Your task to perform on an android device: turn notification dots off Image 0: 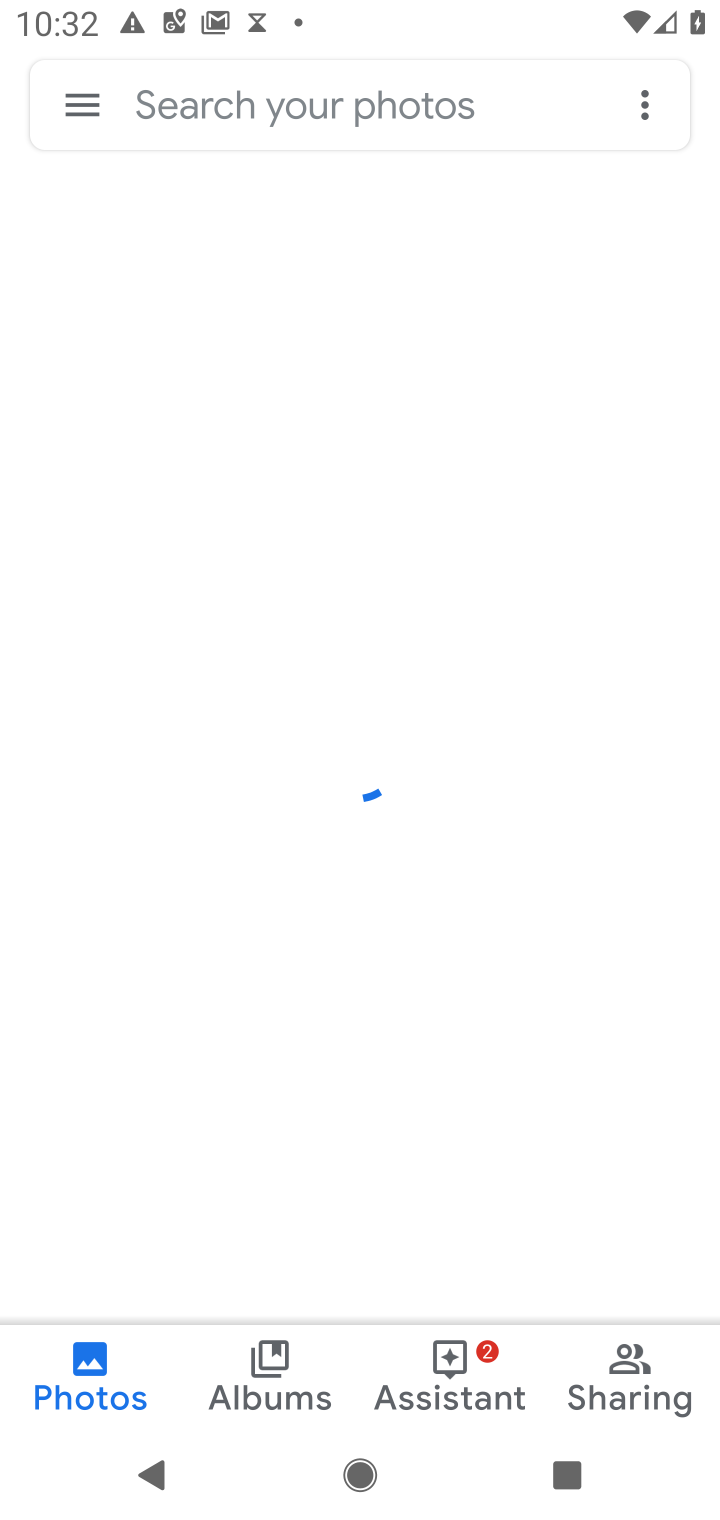
Step 0: press home button
Your task to perform on an android device: turn notification dots off Image 1: 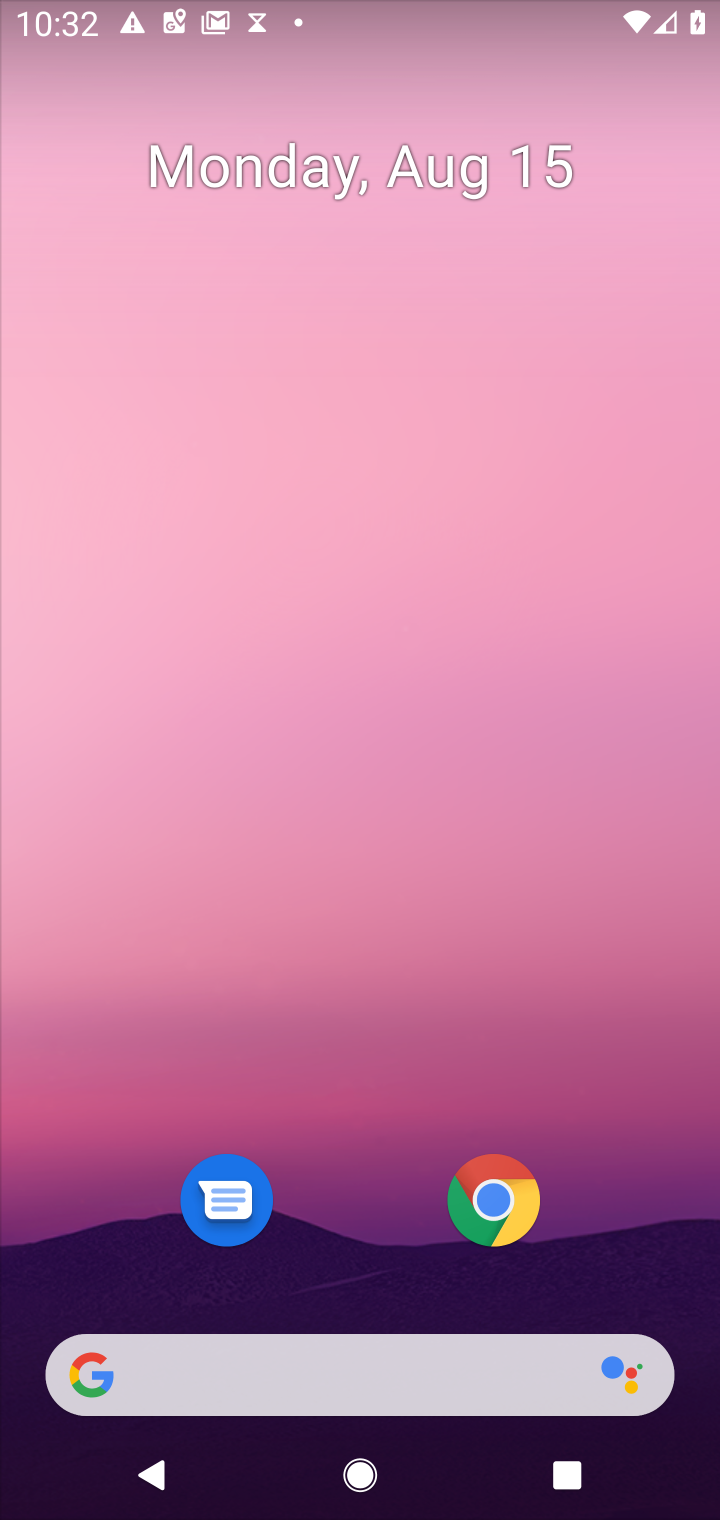
Step 1: drag from (371, 1249) to (361, 434)
Your task to perform on an android device: turn notification dots off Image 2: 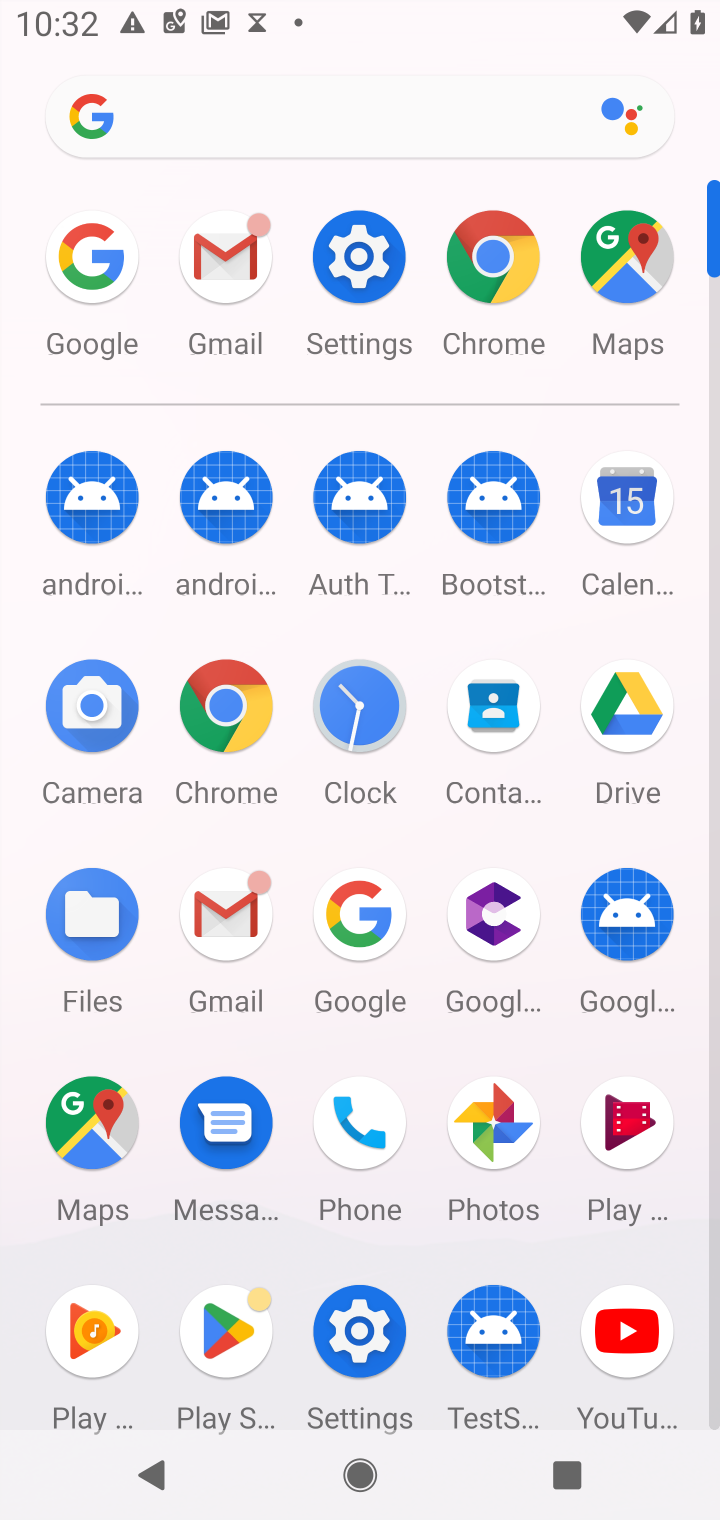
Step 2: click (348, 244)
Your task to perform on an android device: turn notification dots off Image 3: 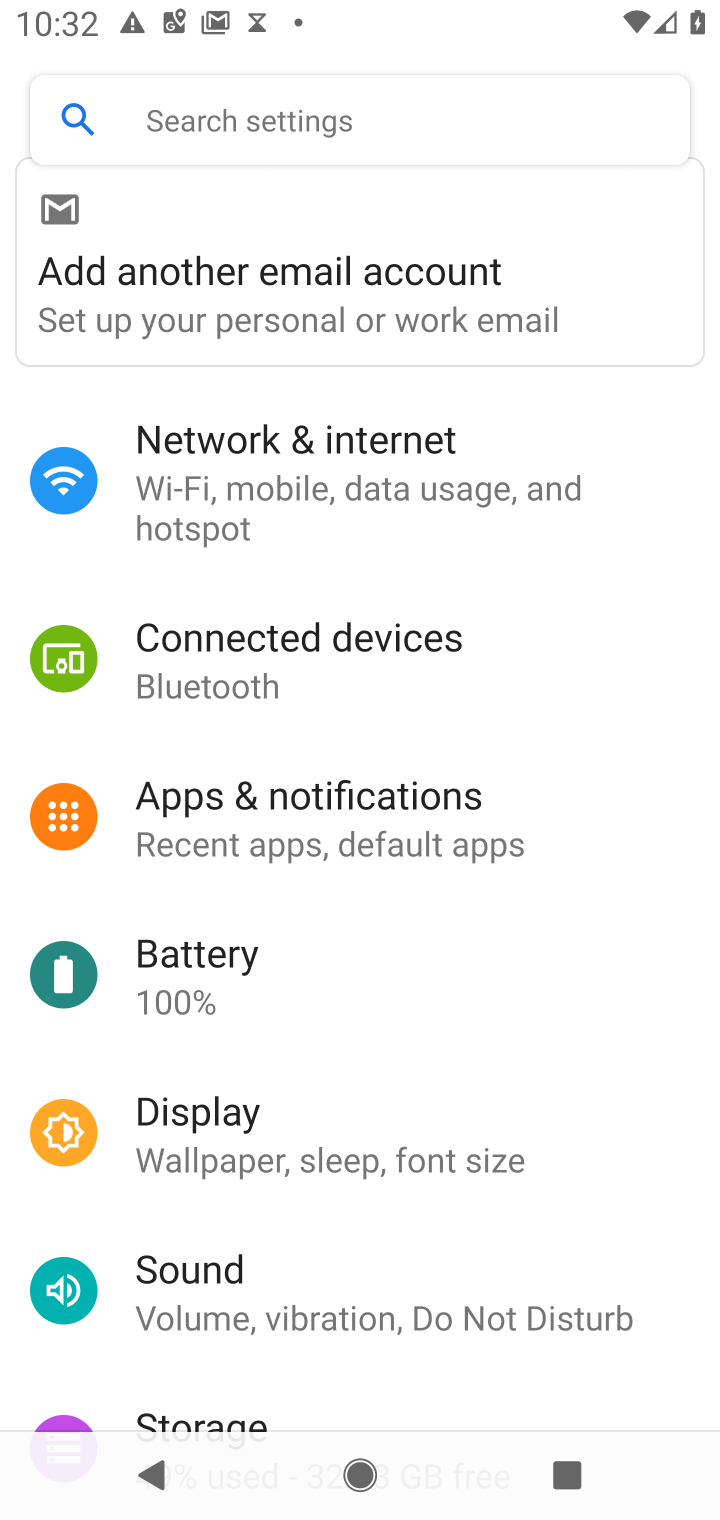
Step 3: click (431, 808)
Your task to perform on an android device: turn notification dots off Image 4: 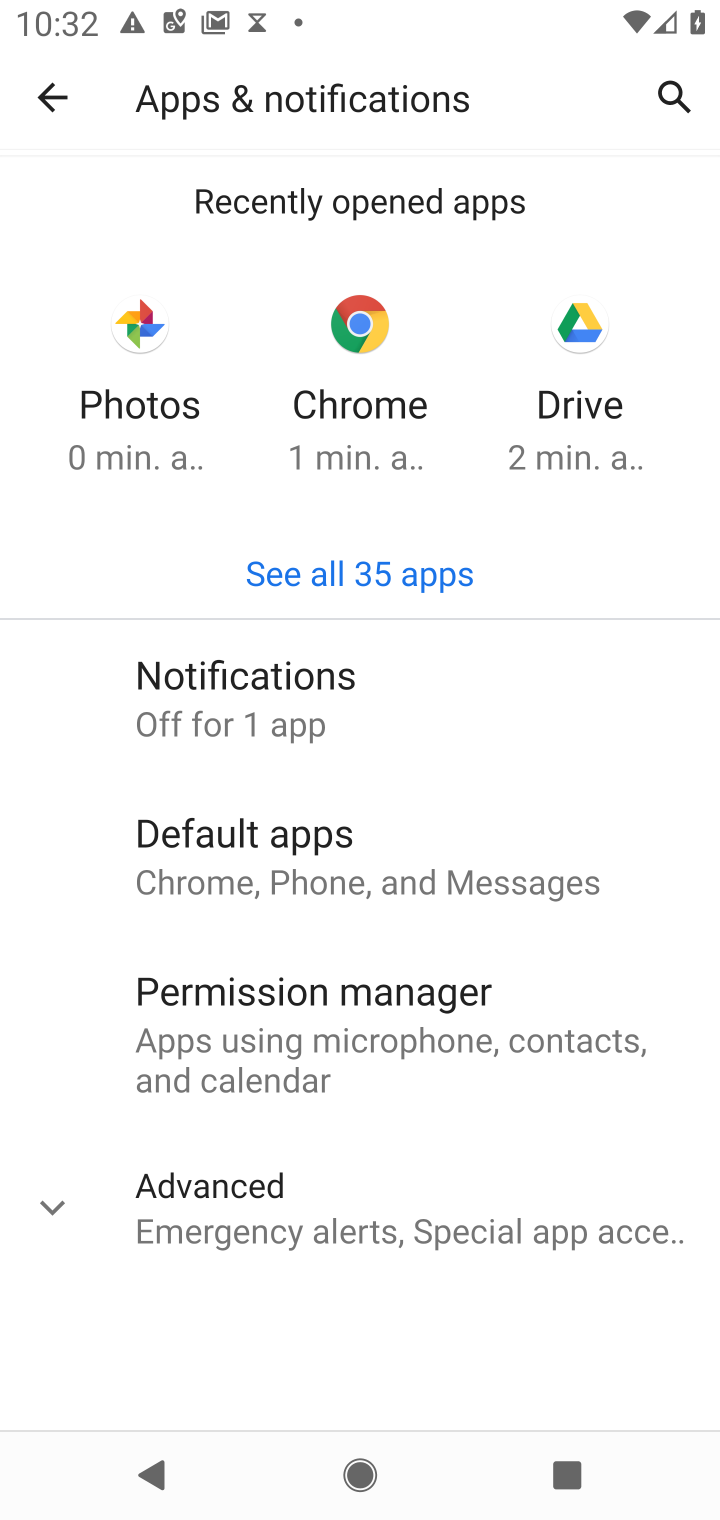
Step 4: click (399, 726)
Your task to perform on an android device: turn notification dots off Image 5: 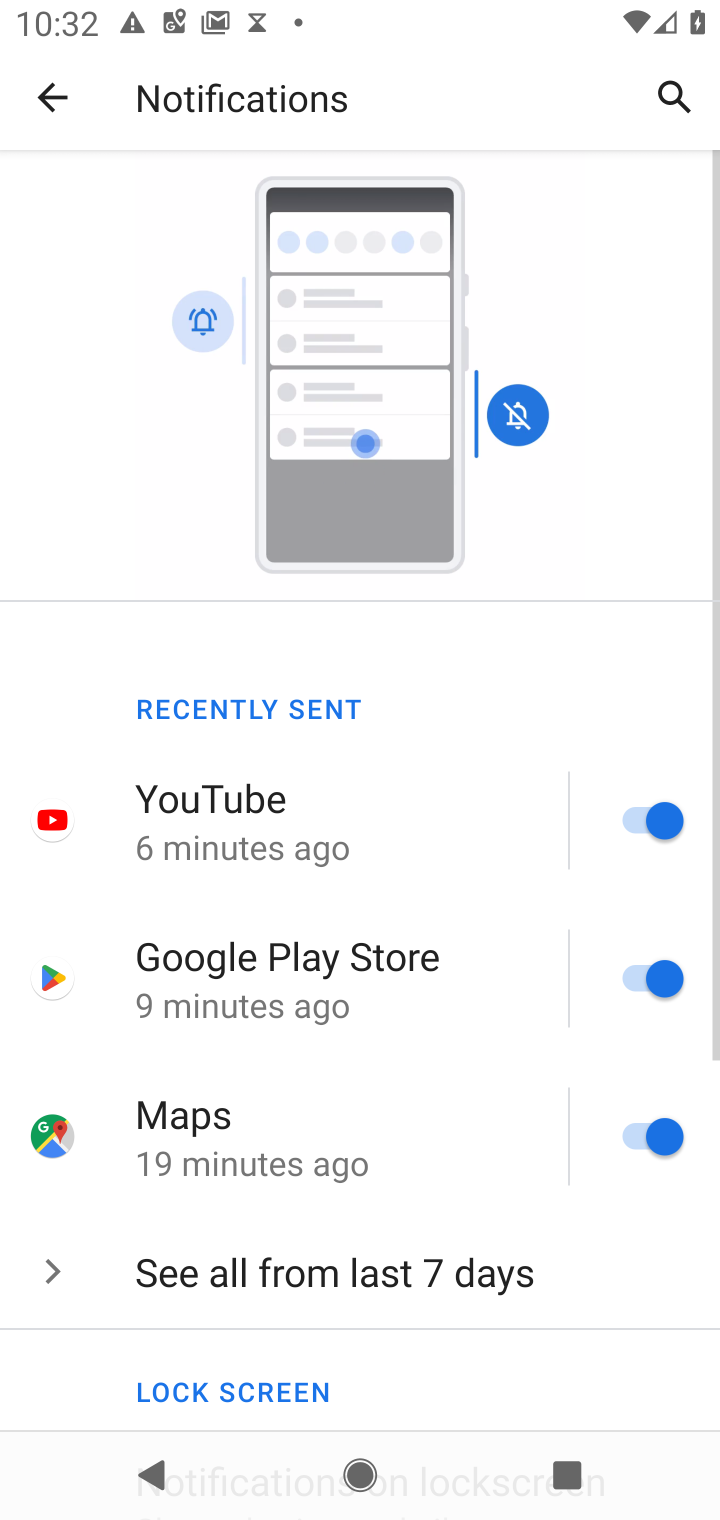
Step 5: drag from (430, 1235) to (468, 514)
Your task to perform on an android device: turn notification dots off Image 6: 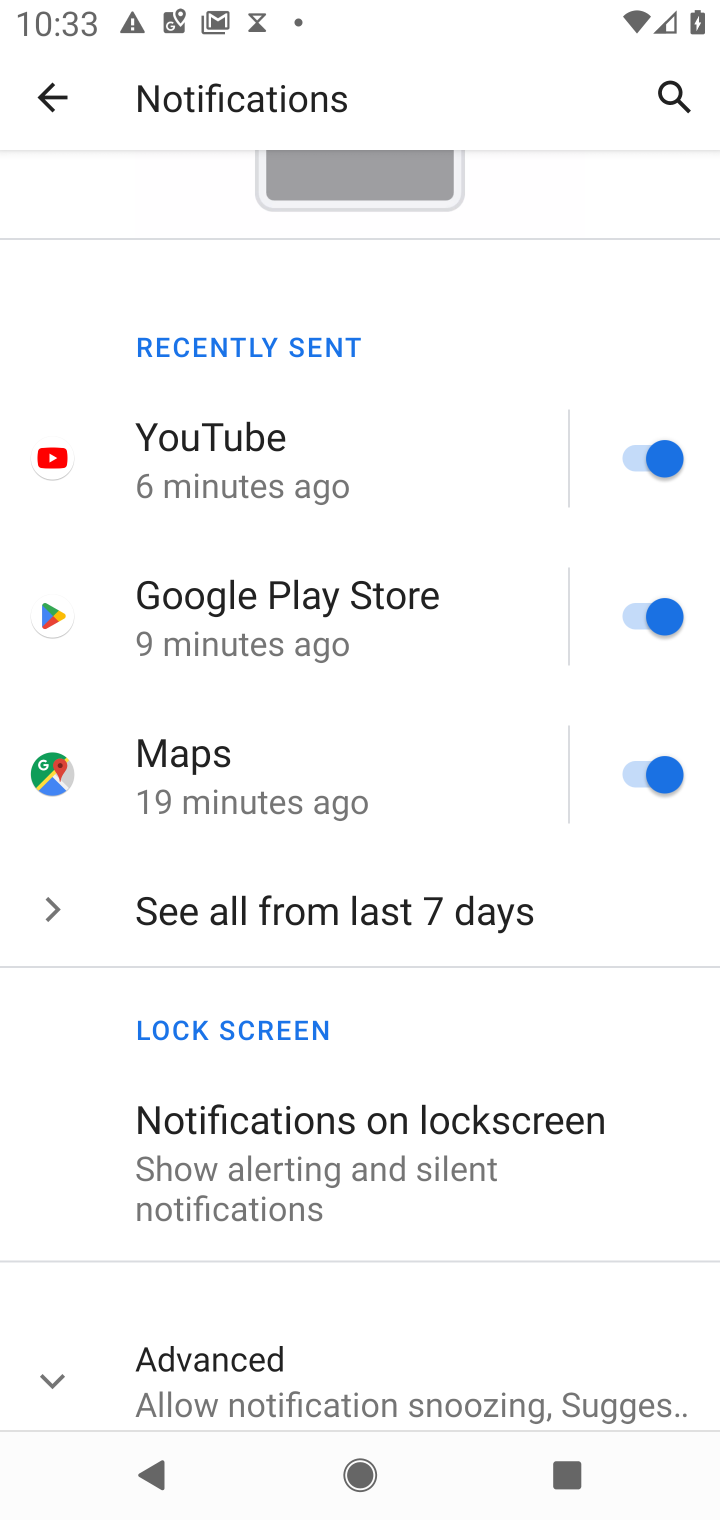
Step 6: drag from (459, 1159) to (457, 693)
Your task to perform on an android device: turn notification dots off Image 7: 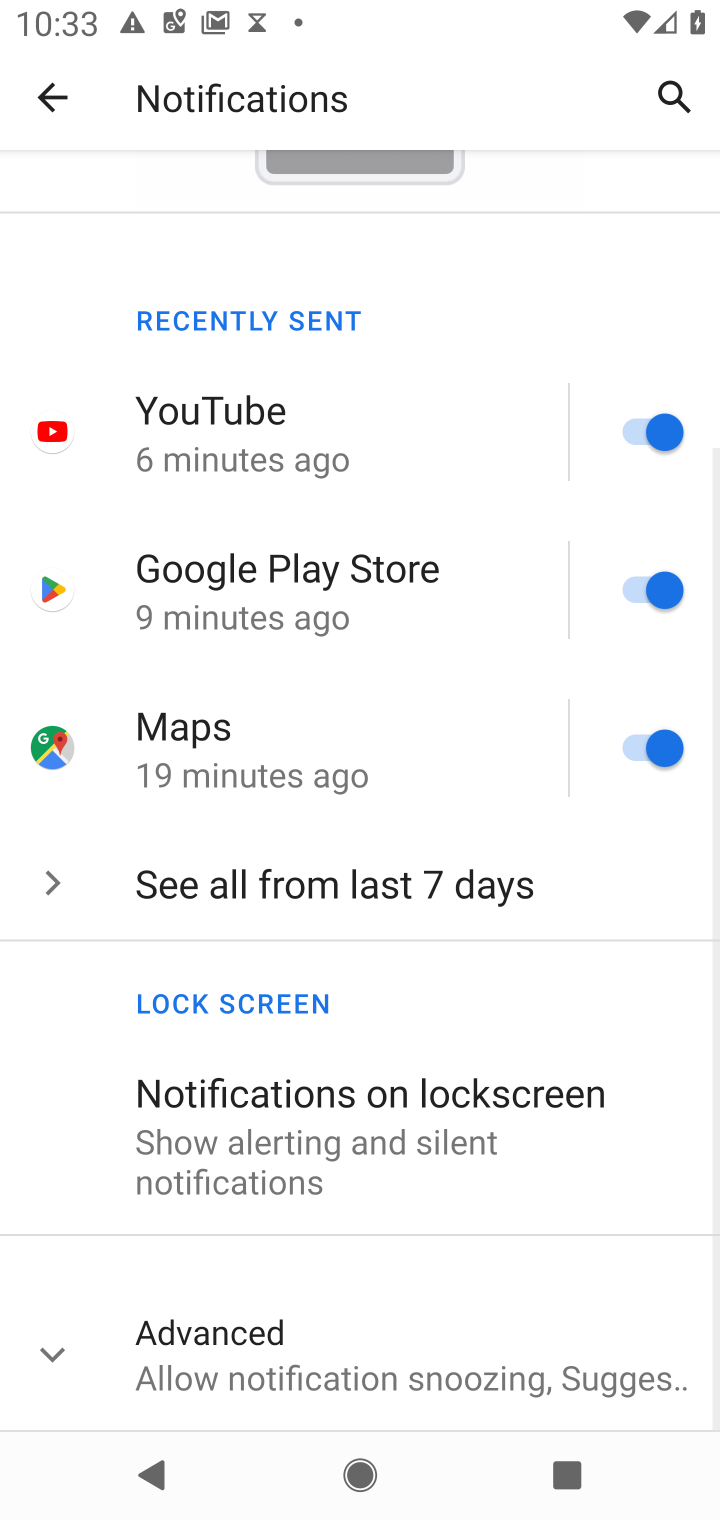
Step 7: click (299, 1378)
Your task to perform on an android device: turn notification dots off Image 8: 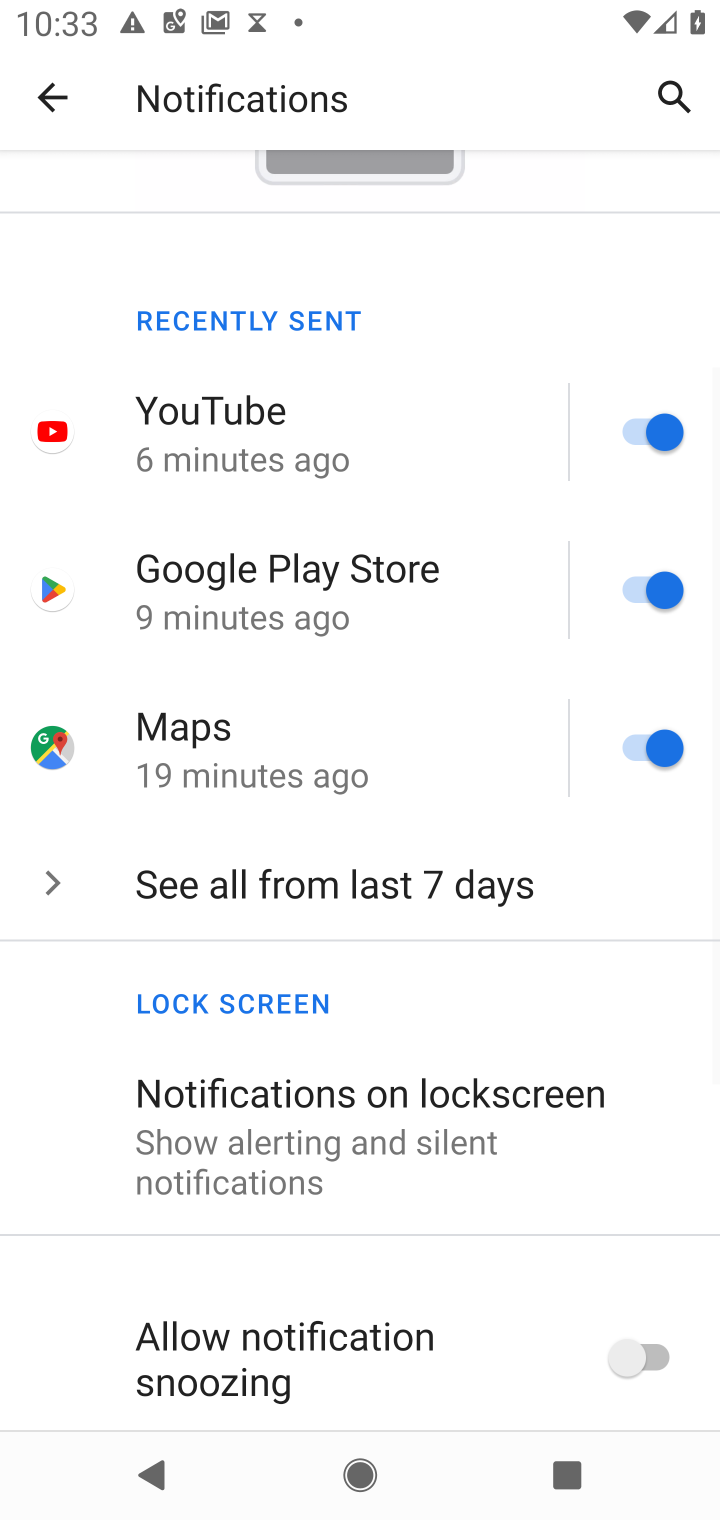
Step 8: drag from (424, 1293) to (427, 580)
Your task to perform on an android device: turn notification dots off Image 9: 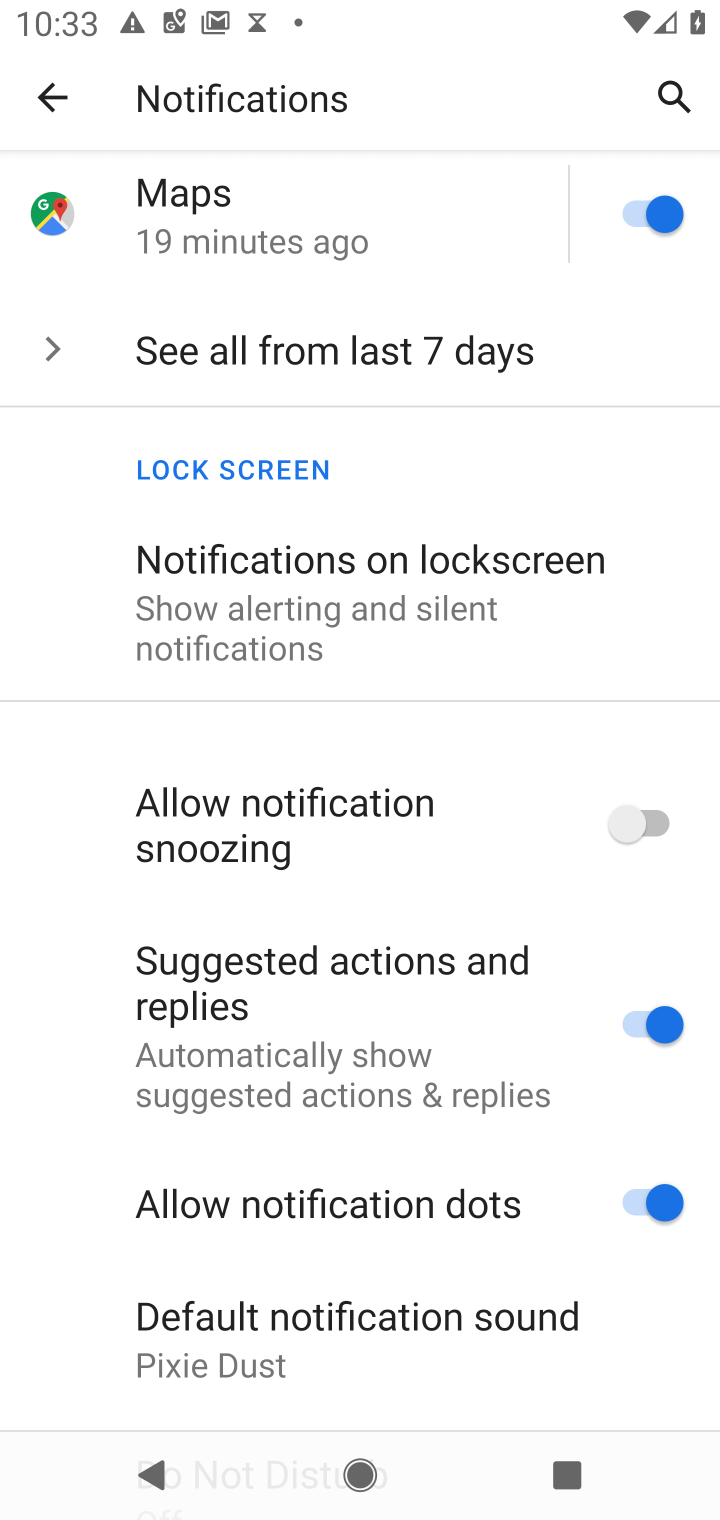
Step 9: click (647, 1198)
Your task to perform on an android device: turn notification dots off Image 10: 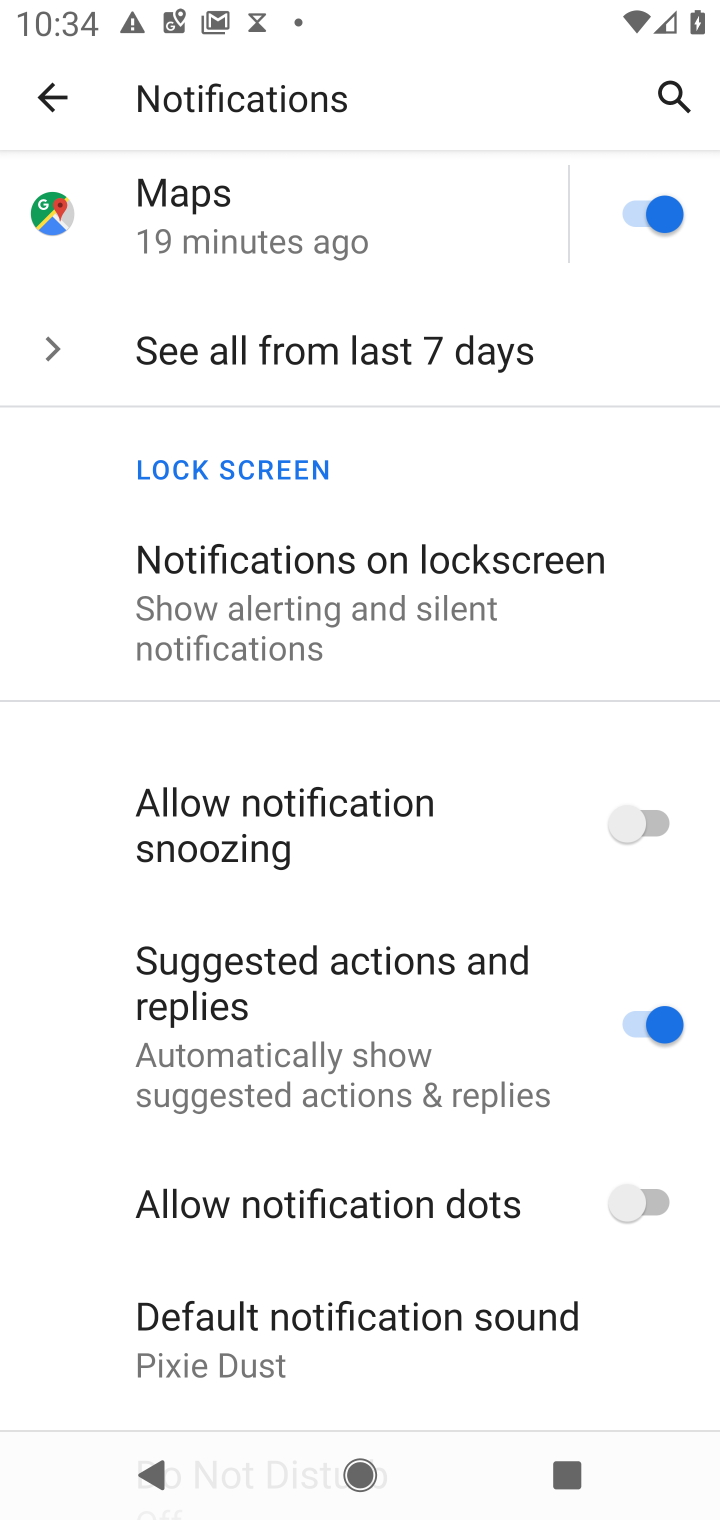
Step 10: task complete